Your task to perform on an android device: turn off picture-in-picture Image 0: 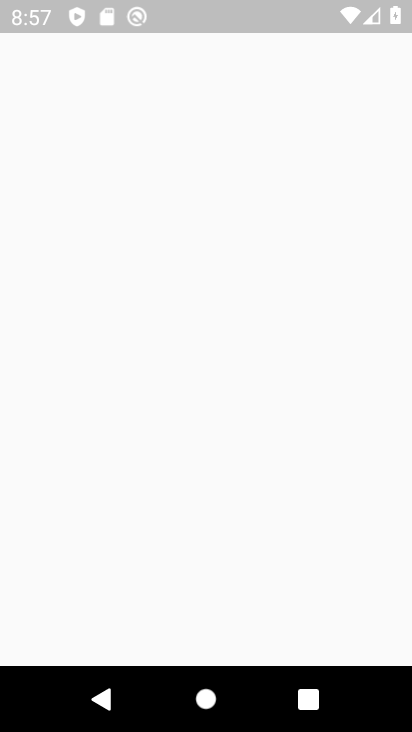
Step 0: press home button
Your task to perform on an android device: turn off picture-in-picture Image 1: 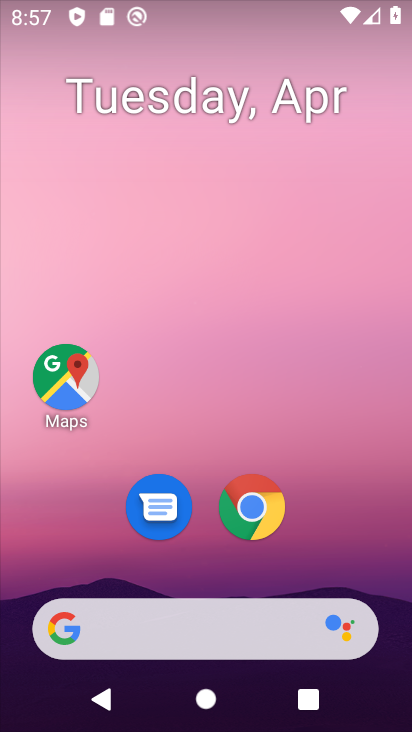
Step 1: click (256, 502)
Your task to perform on an android device: turn off picture-in-picture Image 2: 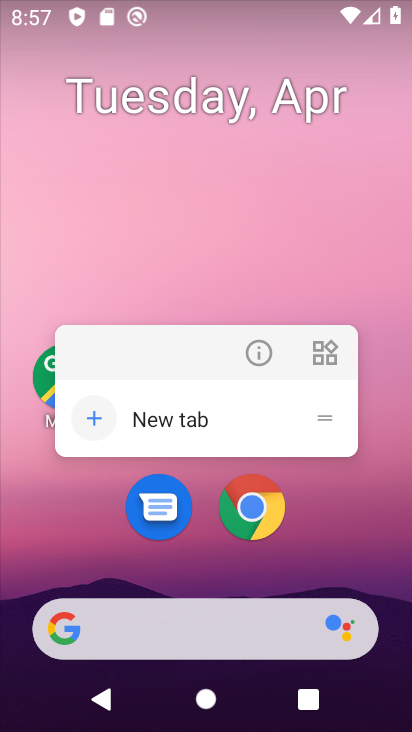
Step 2: click (254, 349)
Your task to perform on an android device: turn off picture-in-picture Image 3: 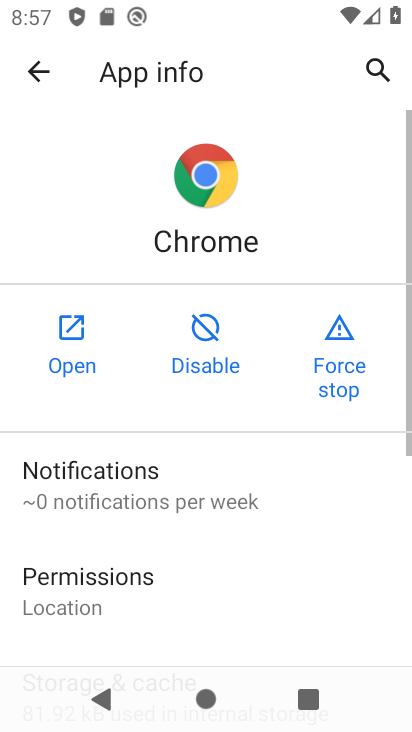
Step 3: drag from (173, 588) to (271, 24)
Your task to perform on an android device: turn off picture-in-picture Image 4: 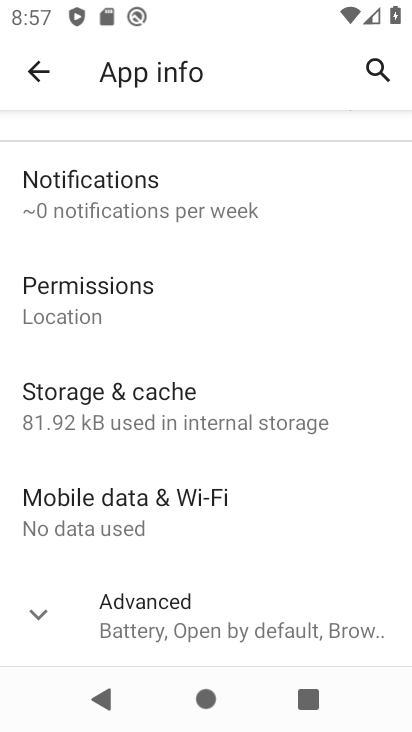
Step 4: click (182, 609)
Your task to perform on an android device: turn off picture-in-picture Image 5: 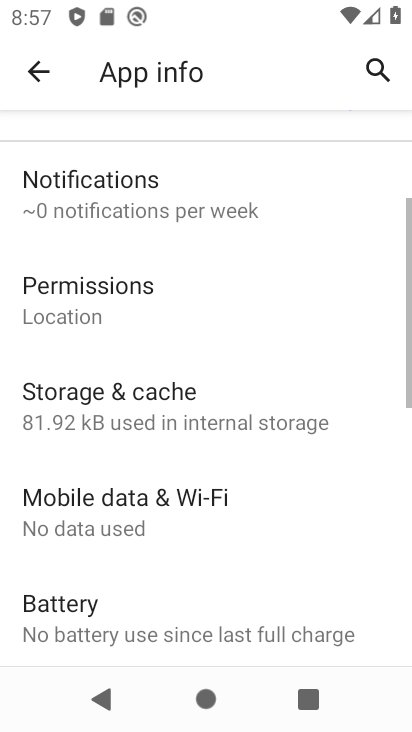
Step 5: drag from (240, 457) to (294, 84)
Your task to perform on an android device: turn off picture-in-picture Image 6: 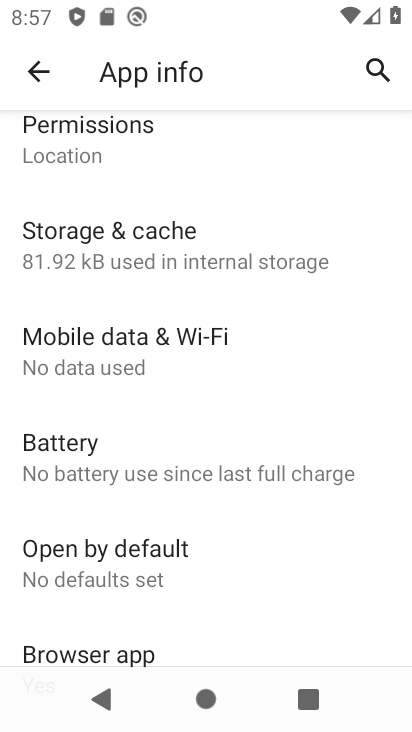
Step 6: drag from (229, 605) to (312, 184)
Your task to perform on an android device: turn off picture-in-picture Image 7: 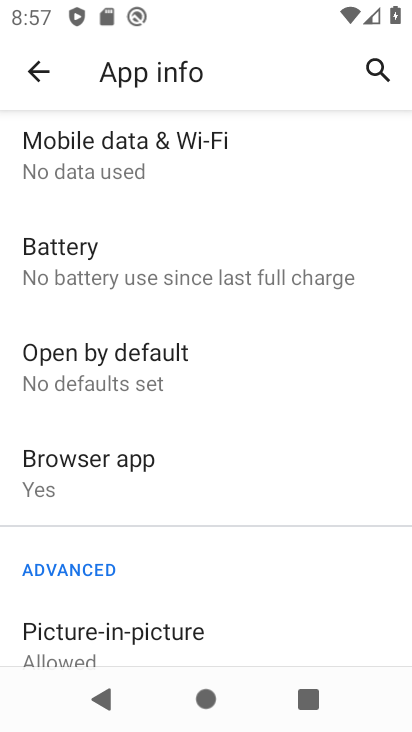
Step 7: click (144, 636)
Your task to perform on an android device: turn off picture-in-picture Image 8: 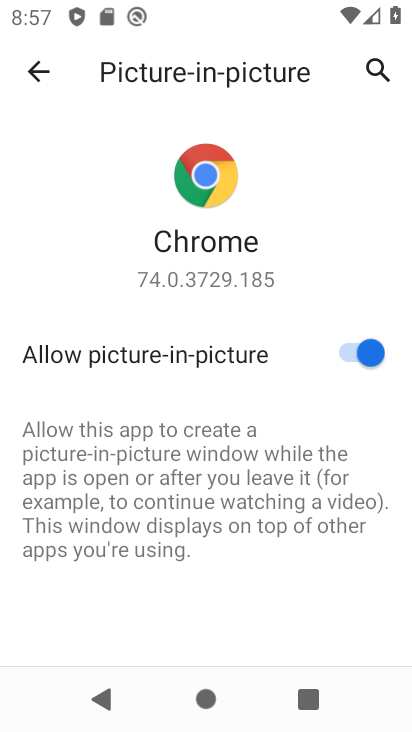
Step 8: click (351, 335)
Your task to perform on an android device: turn off picture-in-picture Image 9: 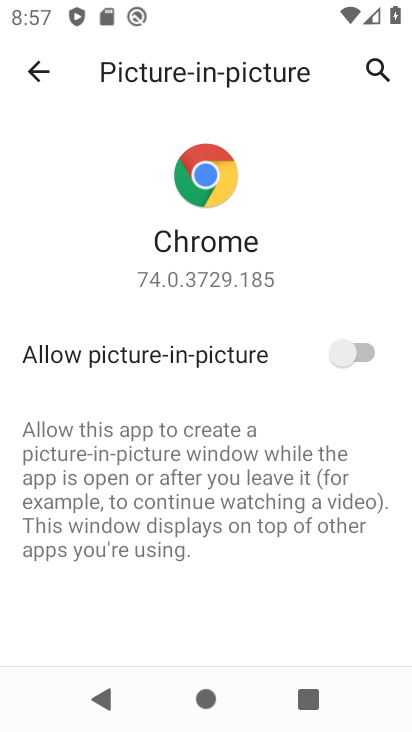
Step 9: task complete